Your task to perform on an android device: Turn off the flashlight Image 0: 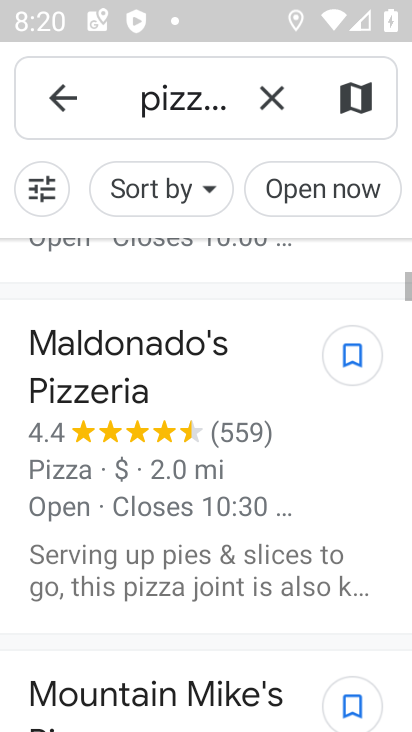
Step 0: press home button
Your task to perform on an android device: Turn off the flashlight Image 1: 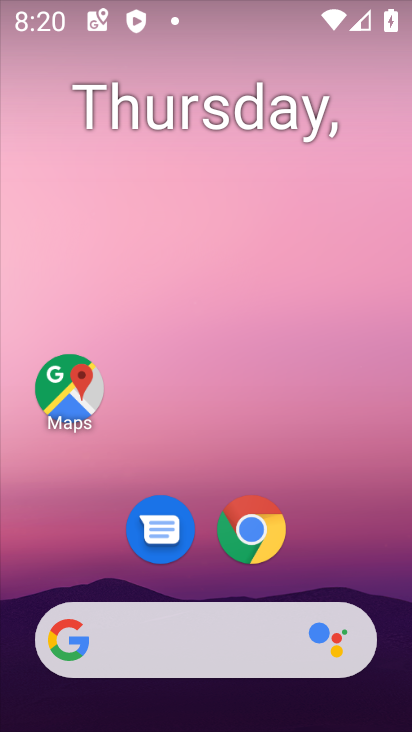
Step 1: task complete